Your task to perform on an android device: Open Google Chrome and open the bookmarks view Image 0: 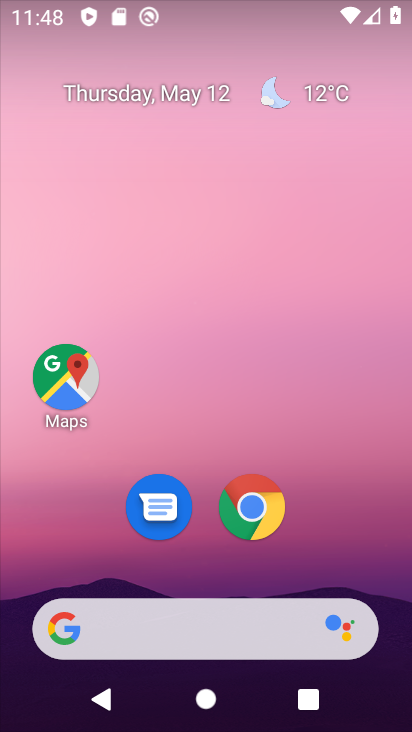
Step 0: click (269, 516)
Your task to perform on an android device: Open Google Chrome and open the bookmarks view Image 1: 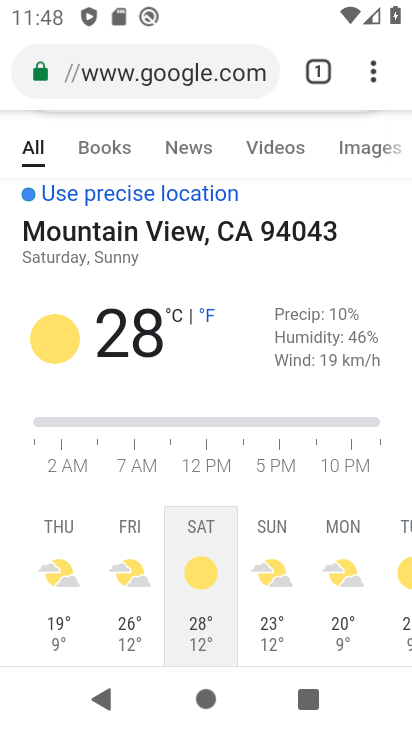
Step 1: task complete